Your task to perform on an android device: change the clock display to analog Image 0: 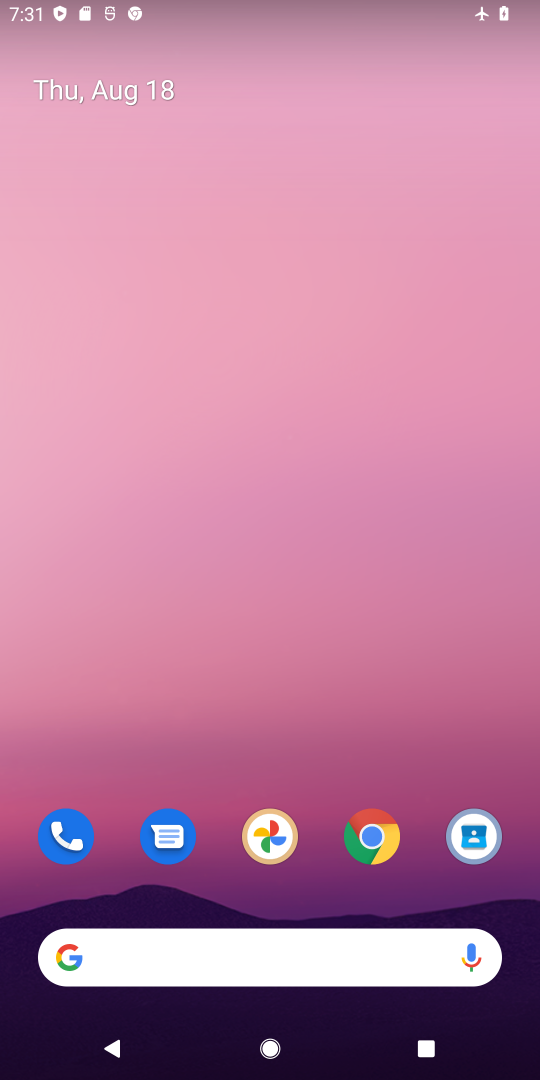
Step 0: drag from (377, 730) to (430, 65)
Your task to perform on an android device: change the clock display to analog Image 1: 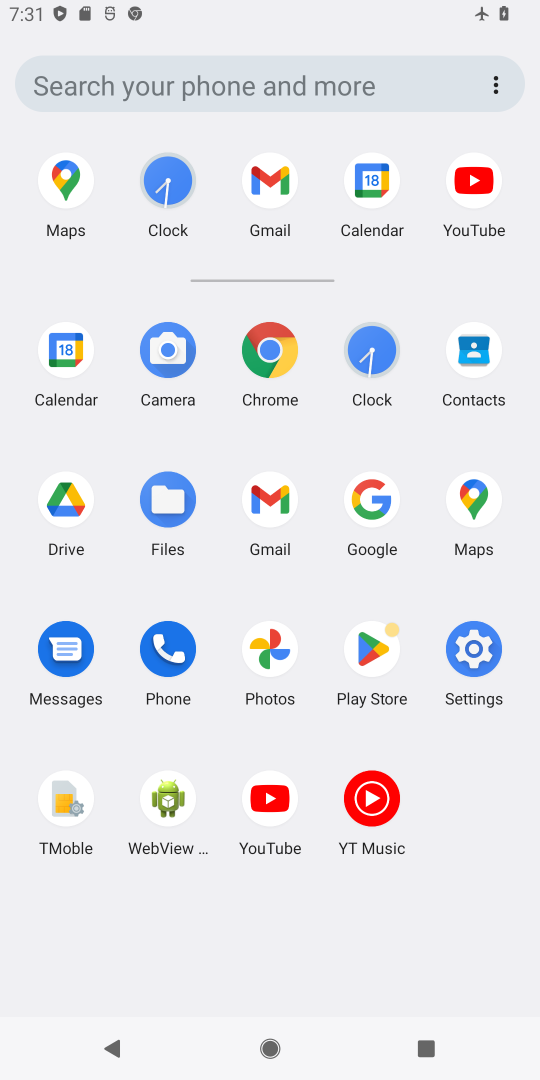
Step 1: click (362, 372)
Your task to perform on an android device: change the clock display to analog Image 2: 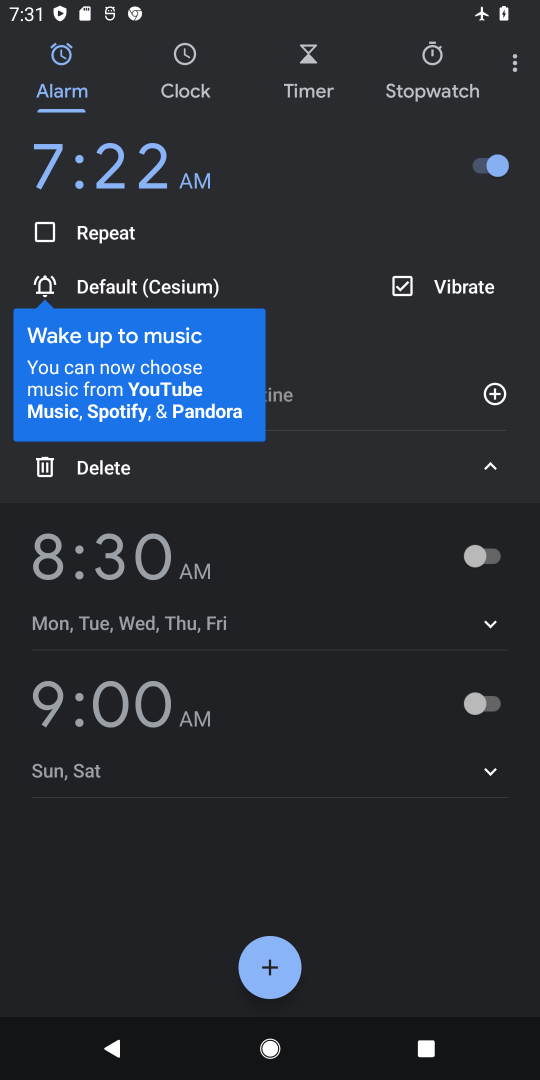
Step 2: drag from (522, 59) to (500, 117)
Your task to perform on an android device: change the clock display to analog Image 3: 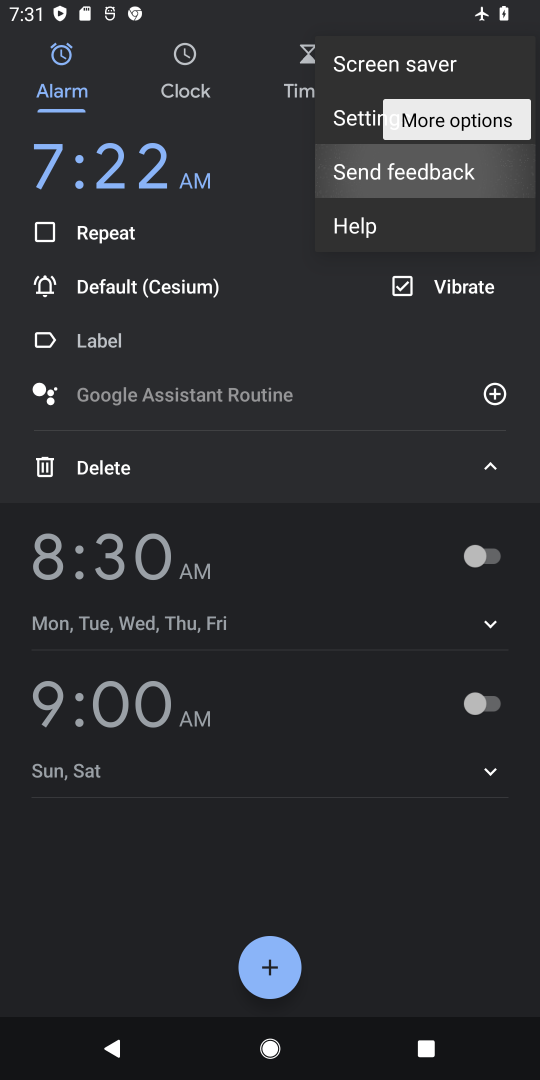
Step 3: click (517, 68)
Your task to perform on an android device: change the clock display to analog Image 4: 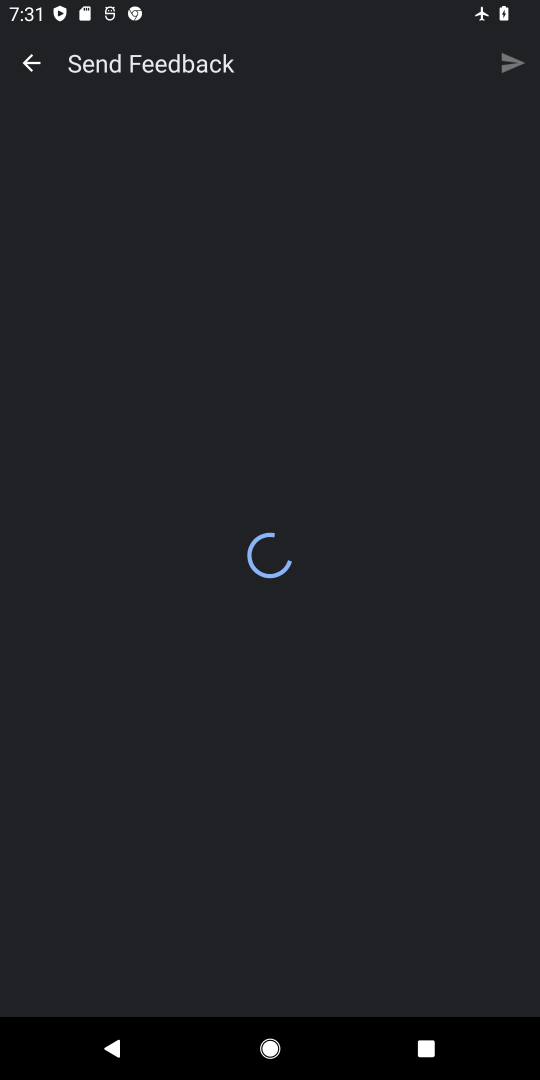
Step 4: click (517, 68)
Your task to perform on an android device: change the clock display to analog Image 5: 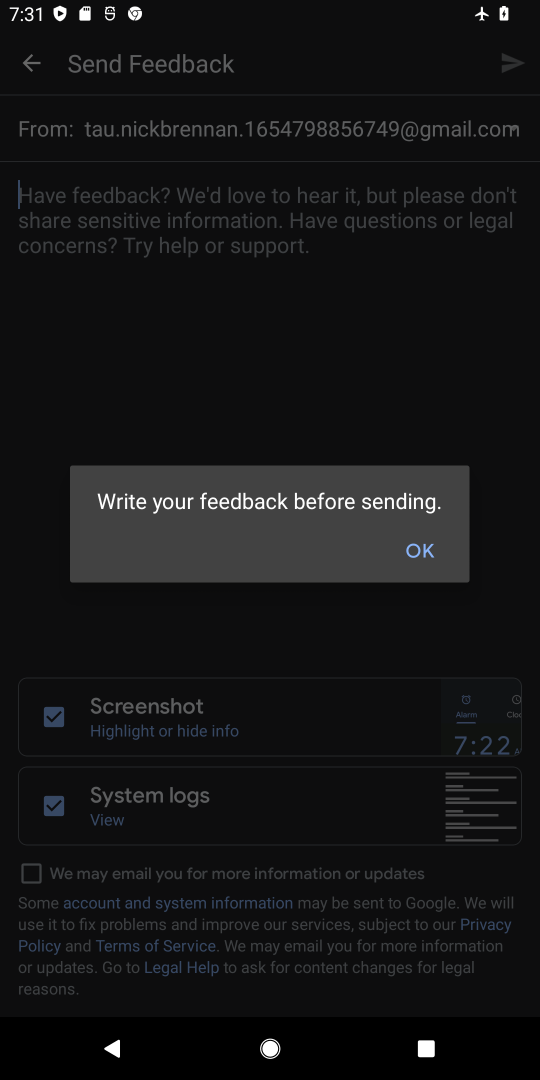
Step 5: click (34, 54)
Your task to perform on an android device: change the clock display to analog Image 6: 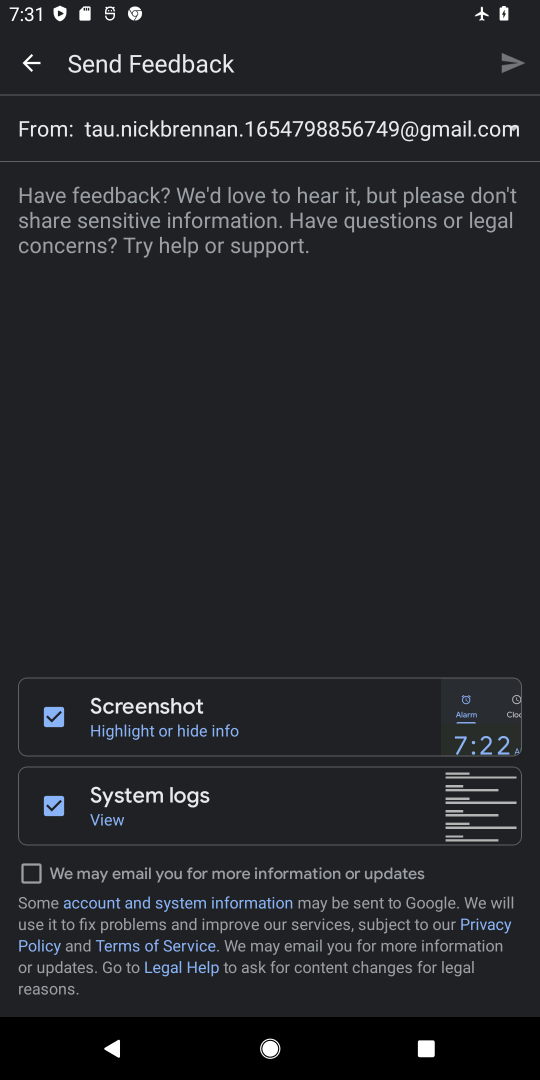
Step 6: press back button
Your task to perform on an android device: change the clock display to analog Image 7: 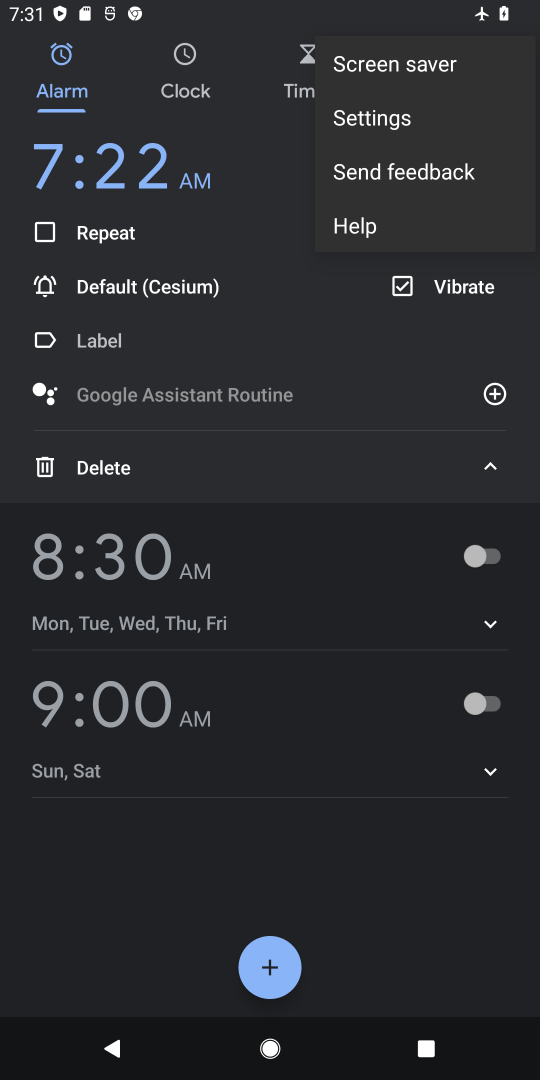
Step 7: click (409, 128)
Your task to perform on an android device: change the clock display to analog Image 8: 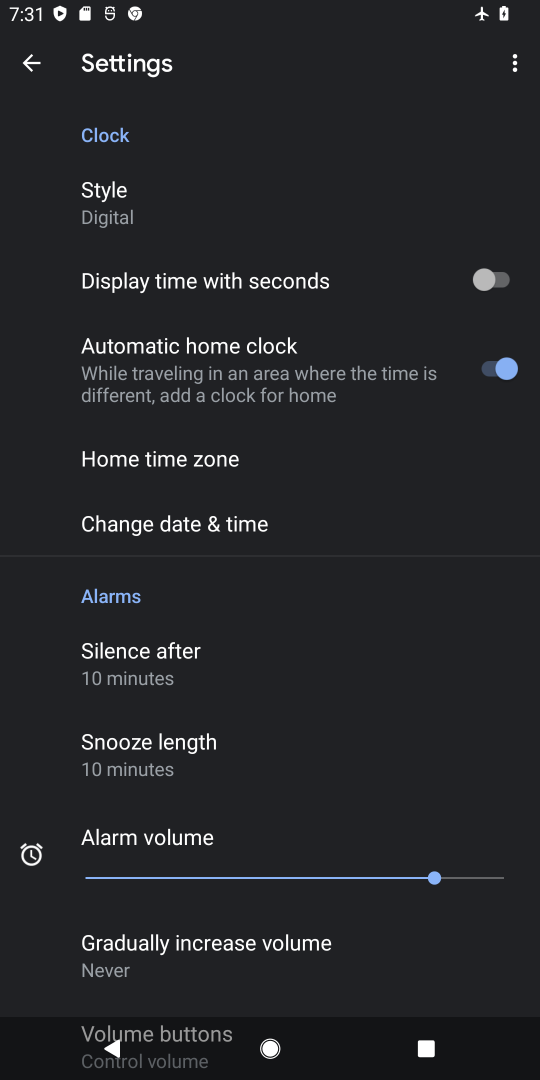
Step 8: click (138, 209)
Your task to perform on an android device: change the clock display to analog Image 9: 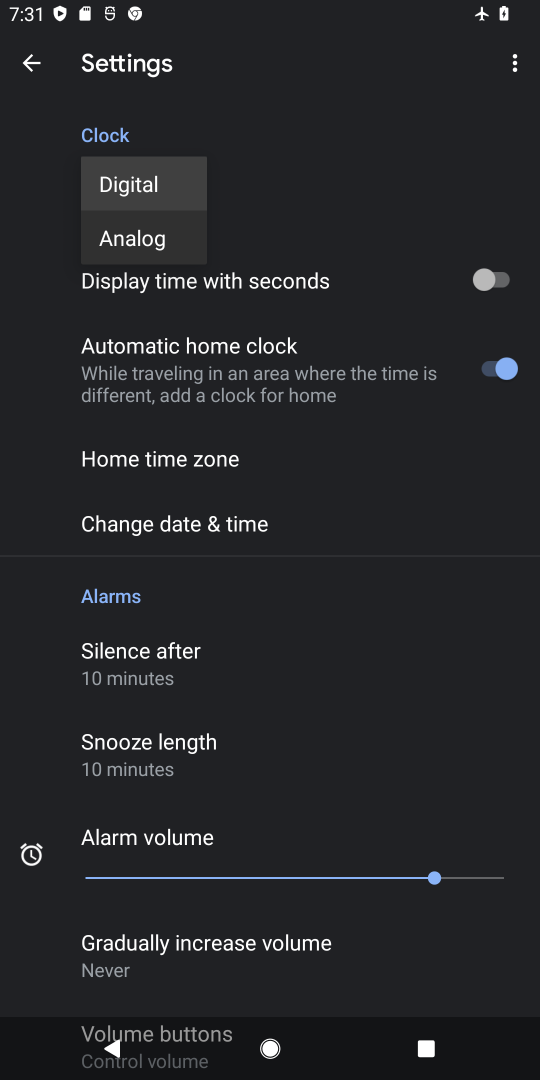
Step 9: click (158, 246)
Your task to perform on an android device: change the clock display to analog Image 10: 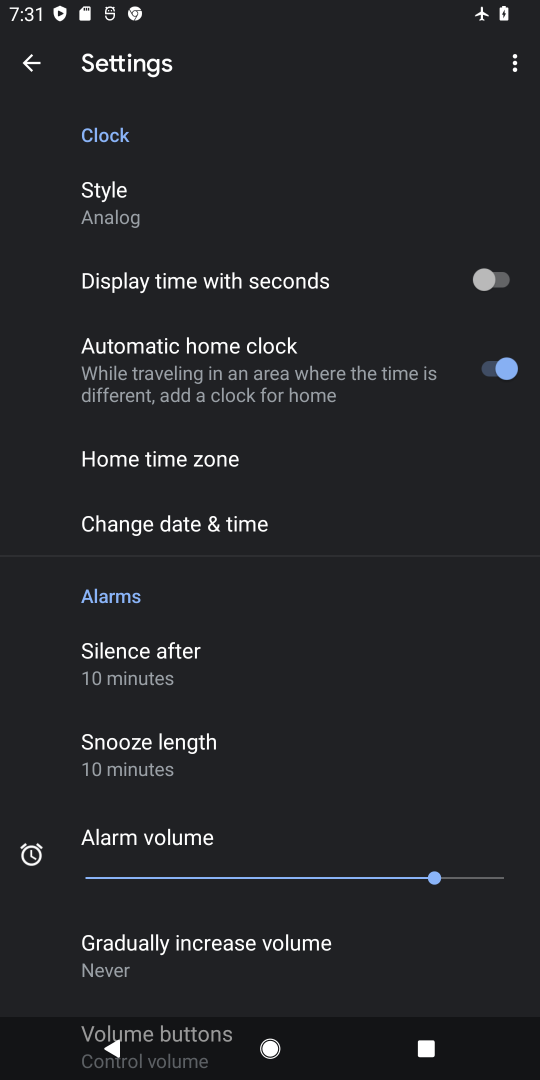
Step 10: task complete